Your task to perform on an android device: Open calendar and show me the fourth week of next month Image 0: 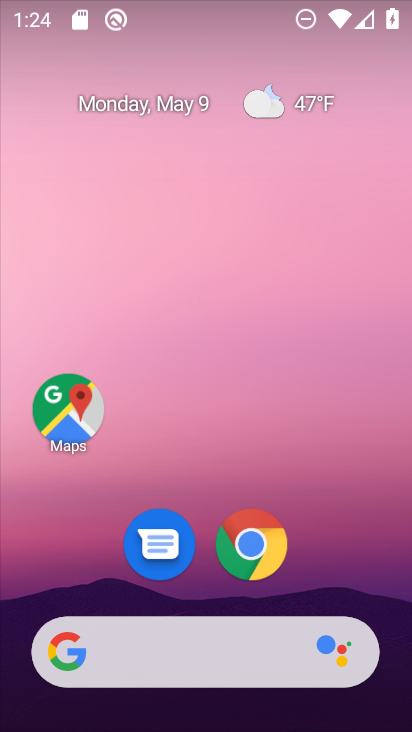
Step 0: drag from (385, 500) to (377, 43)
Your task to perform on an android device: Open calendar and show me the fourth week of next month Image 1: 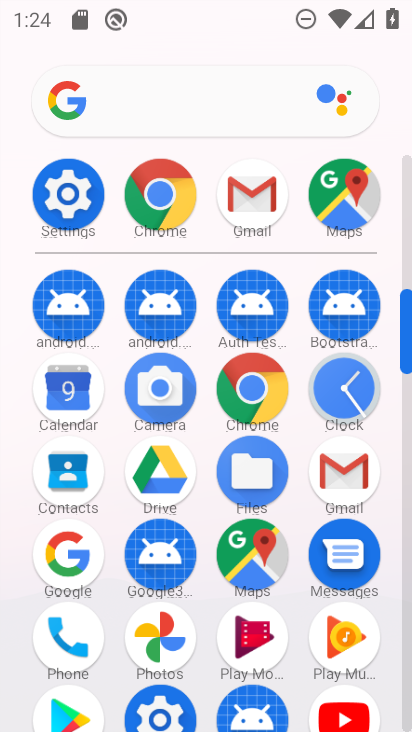
Step 1: click (65, 402)
Your task to perform on an android device: Open calendar and show me the fourth week of next month Image 2: 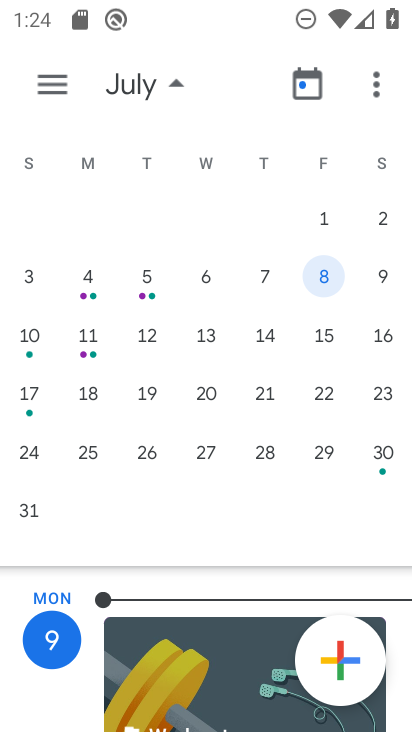
Step 2: drag from (294, 371) to (0, 349)
Your task to perform on an android device: Open calendar and show me the fourth week of next month Image 3: 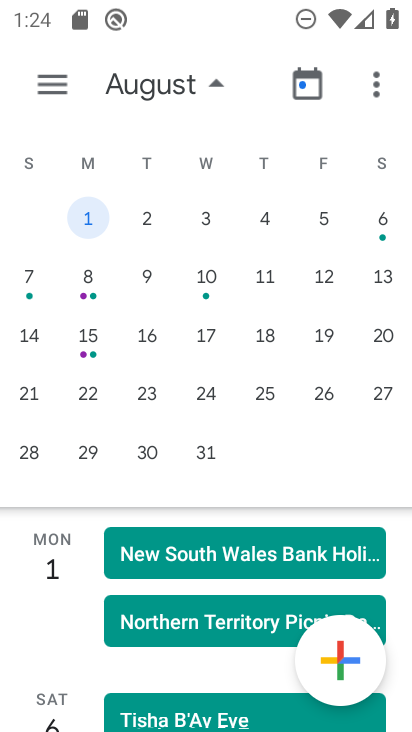
Step 3: click (38, 457)
Your task to perform on an android device: Open calendar and show me the fourth week of next month Image 4: 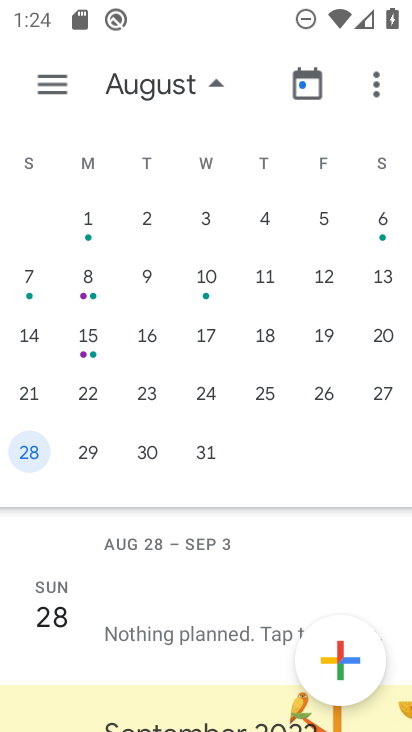
Step 4: task complete